Your task to perform on an android device: turn off location Image 0: 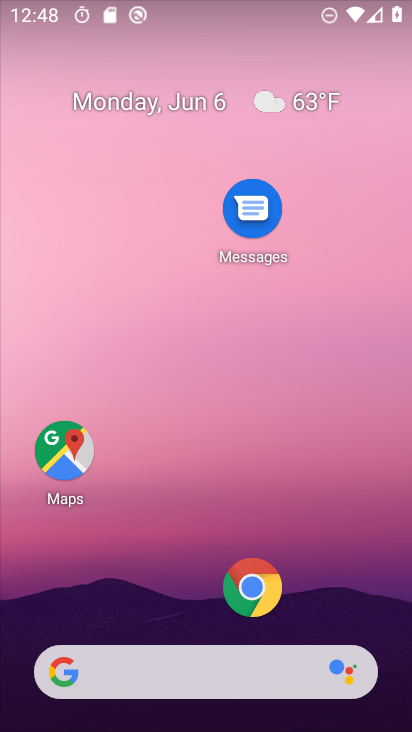
Step 0: drag from (174, 616) to (192, 233)
Your task to perform on an android device: turn off location Image 1: 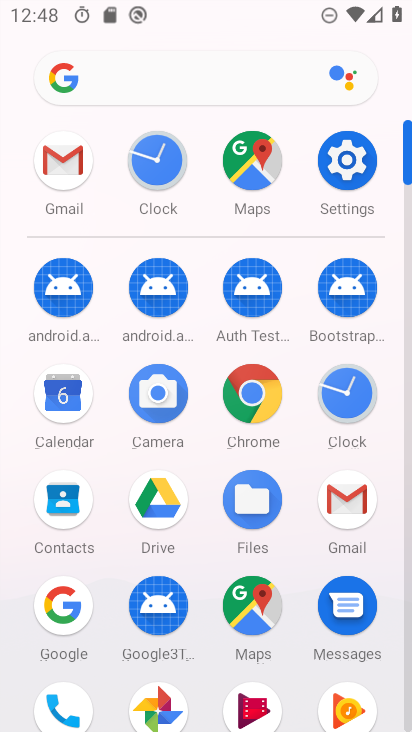
Step 1: click (341, 131)
Your task to perform on an android device: turn off location Image 2: 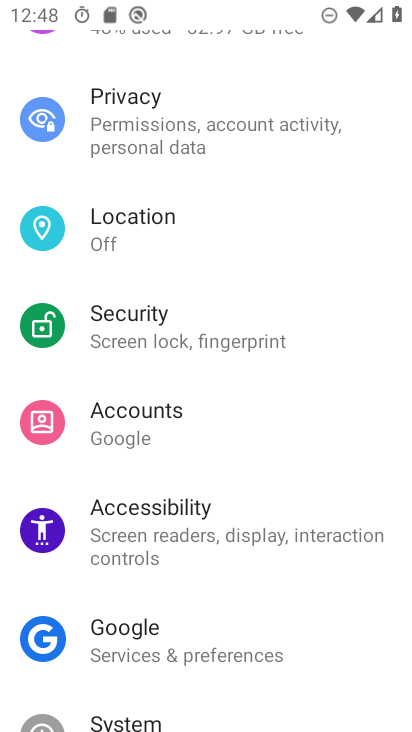
Step 2: task complete